Your task to perform on an android device: turn off javascript in the chrome app Image 0: 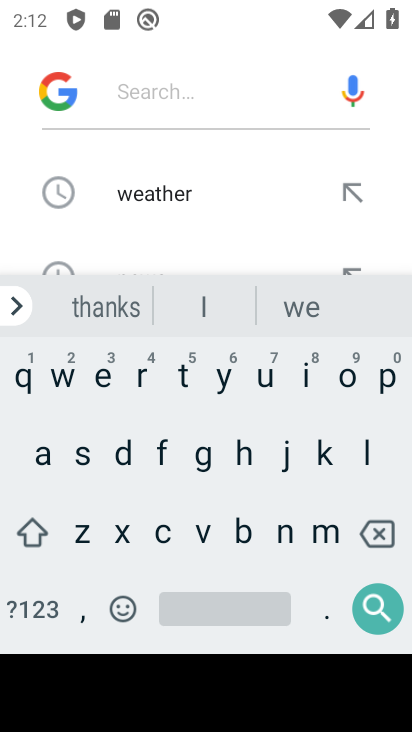
Step 0: press home button
Your task to perform on an android device: turn off javascript in the chrome app Image 1: 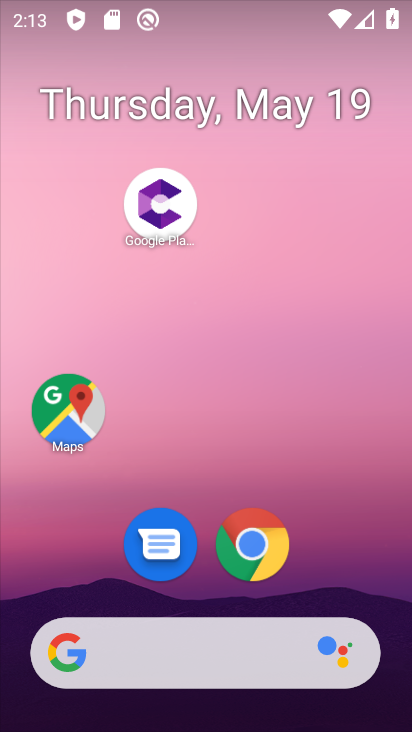
Step 1: drag from (294, 695) to (401, 192)
Your task to perform on an android device: turn off javascript in the chrome app Image 2: 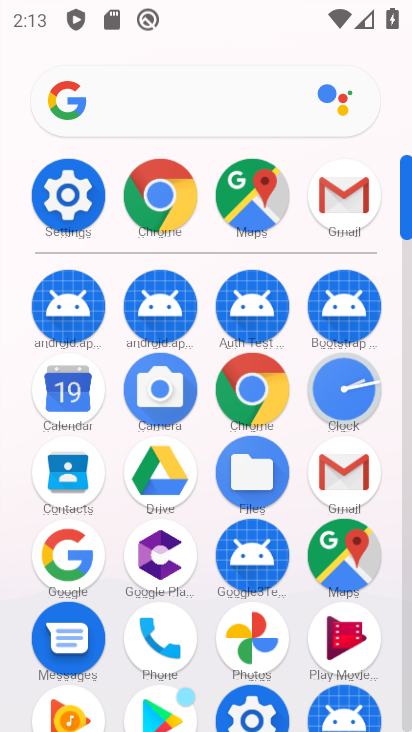
Step 2: click (159, 209)
Your task to perform on an android device: turn off javascript in the chrome app Image 3: 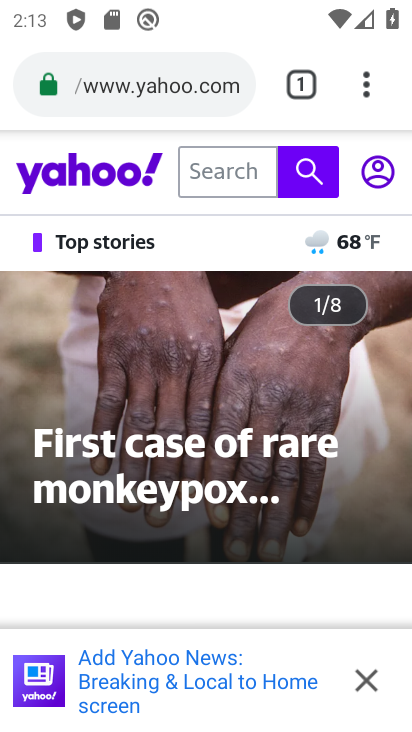
Step 3: click (367, 88)
Your task to perform on an android device: turn off javascript in the chrome app Image 4: 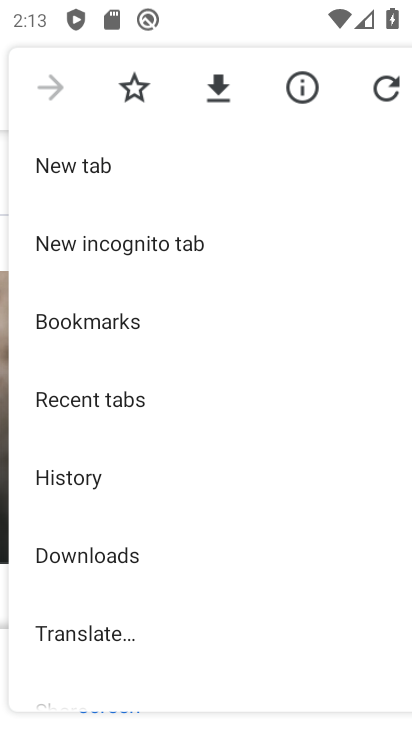
Step 4: drag from (129, 477) to (121, 130)
Your task to perform on an android device: turn off javascript in the chrome app Image 5: 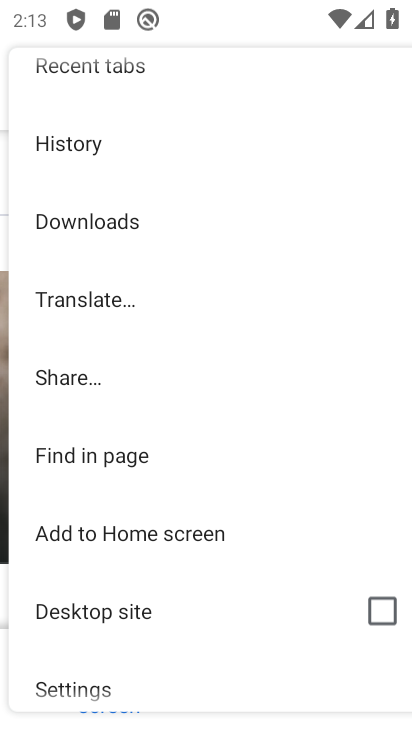
Step 5: drag from (201, 542) to (206, 283)
Your task to perform on an android device: turn off javascript in the chrome app Image 6: 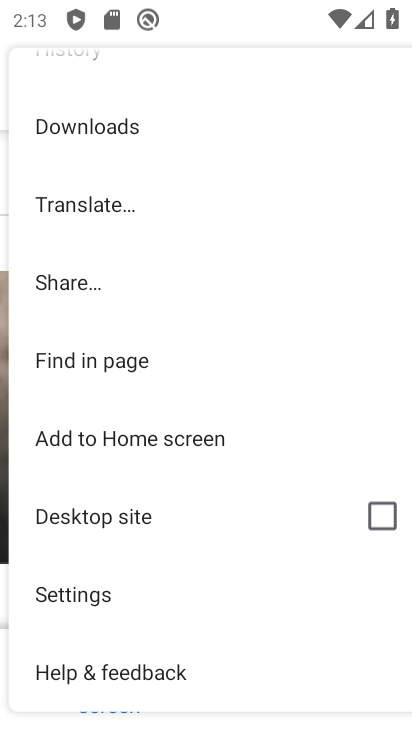
Step 6: click (125, 600)
Your task to perform on an android device: turn off javascript in the chrome app Image 7: 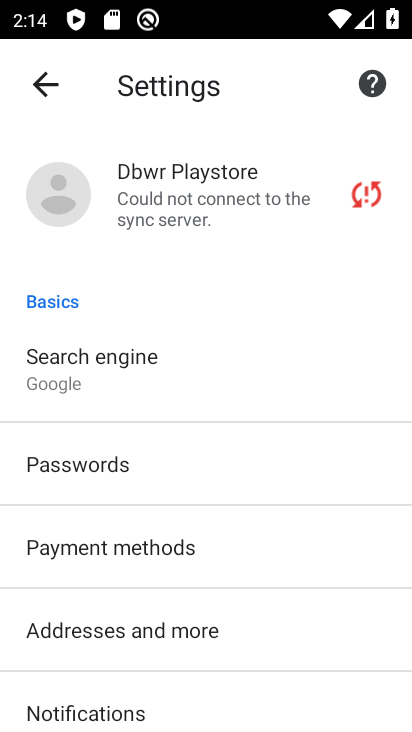
Step 7: drag from (103, 574) to (180, 367)
Your task to perform on an android device: turn off javascript in the chrome app Image 8: 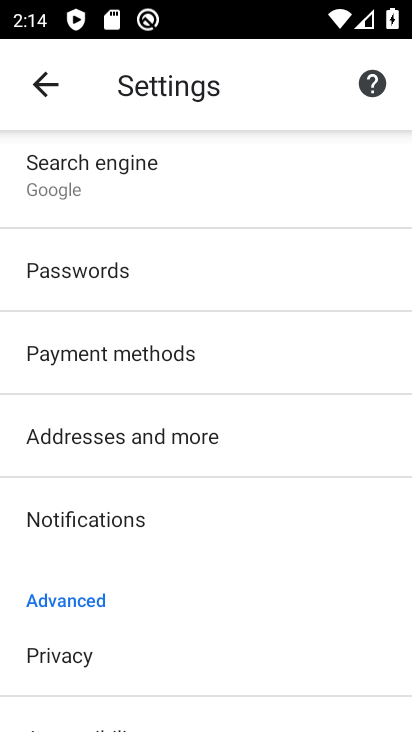
Step 8: drag from (112, 595) to (169, 394)
Your task to perform on an android device: turn off javascript in the chrome app Image 9: 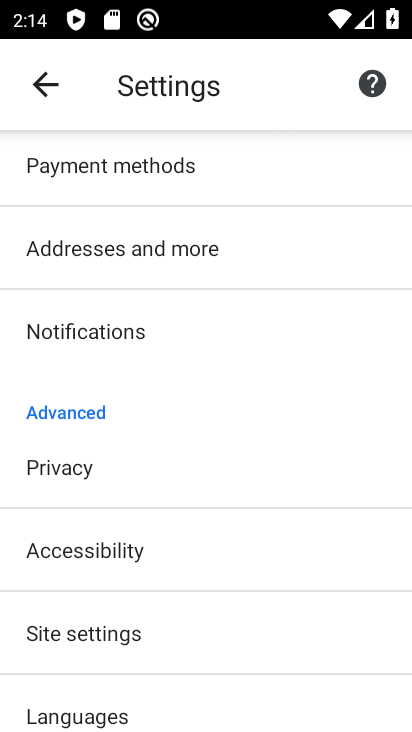
Step 9: click (95, 640)
Your task to perform on an android device: turn off javascript in the chrome app Image 10: 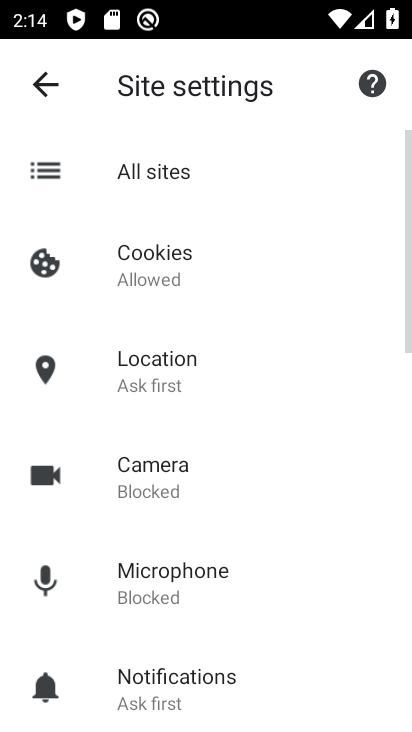
Step 10: drag from (200, 606) to (222, 313)
Your task to perform on an android device: turn off javascript in the chrome app Image 11: 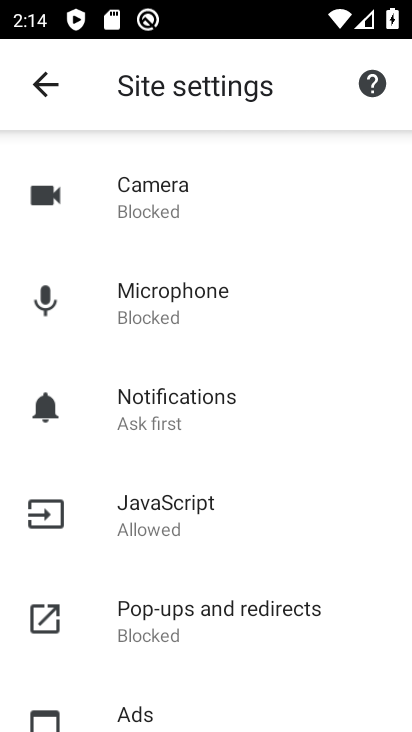
Step 11: click (176, 528)
Your task to perform on an android device: turn off javascript in the chrome app Image 12: 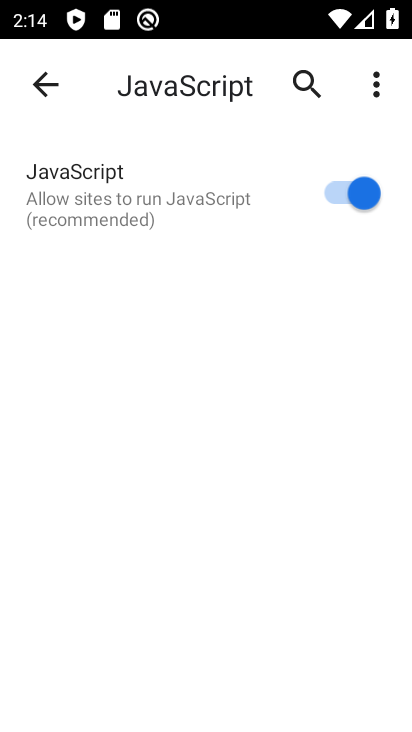
Step 12: click (312, 198)
Your task to perform on an android device: turn off javascript in the chrome app Image 13: 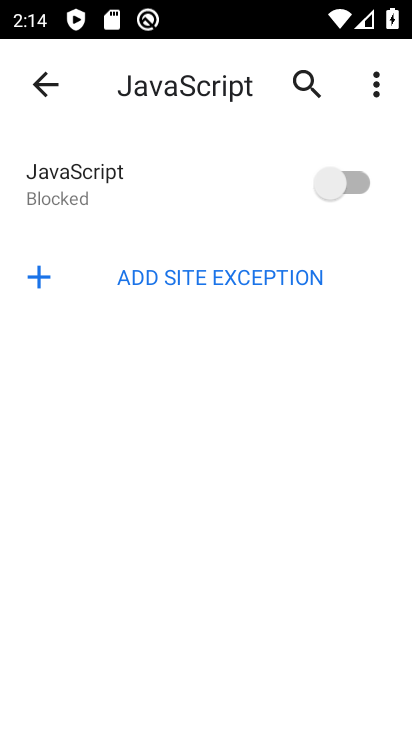
Step 13: task complete